Your task to perform on an android device: turn off notifications settings in the gmail app Image 0: 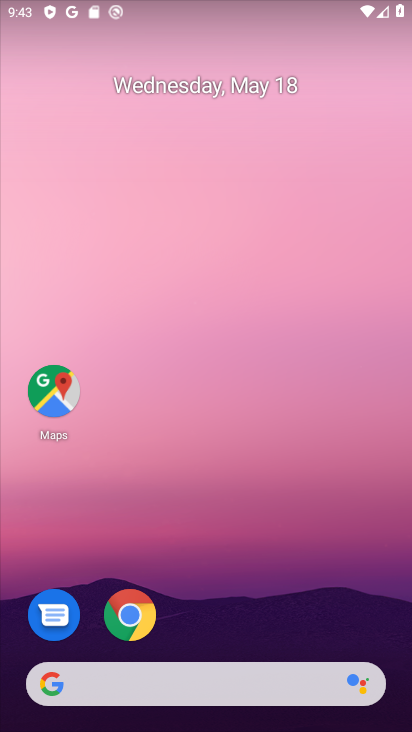
Step 0: drag from (319, 640) to (328, 145)
Your task to perform on an android device: turn off notifications settings in the gmail app Image 1: 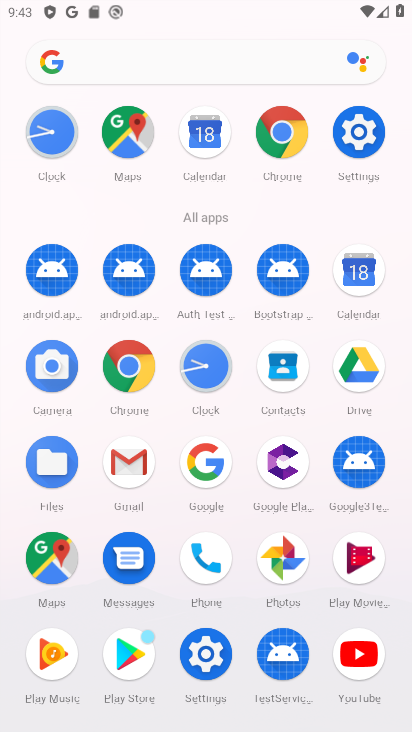
Step 1: click (123, 452)
Your task to perform on an android device: turn off notifications settings in the gmail app Image 2: 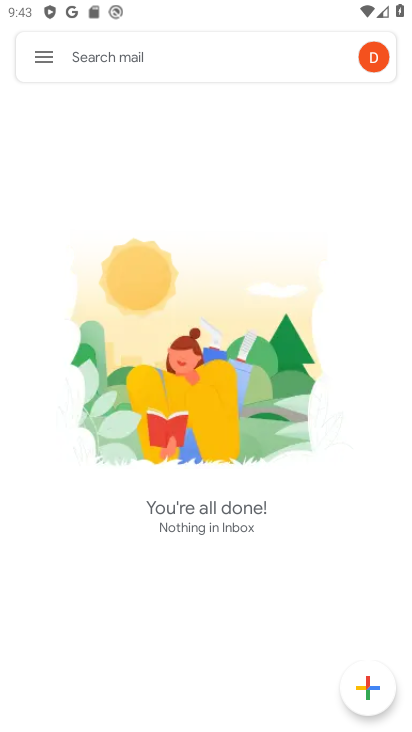
Step 2: click (44, 64)
Your task to perform on an android device: turn off notifications settings in the gmail app Image 3: 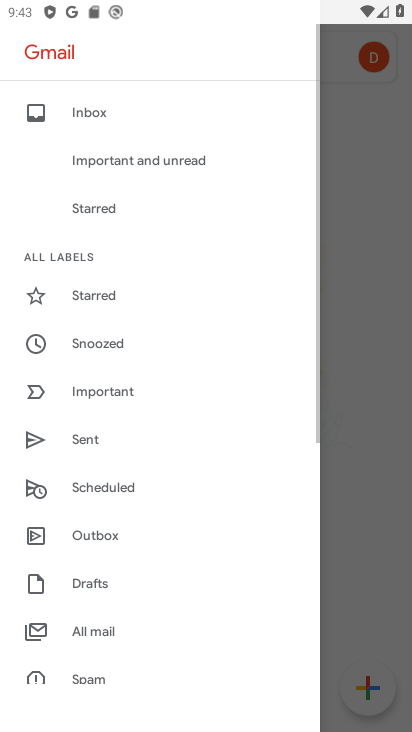
Step 3: drag from (68, 583) to (98, 190)
Your task to perform on an android device: turn off notifications settings in the gmail app Image 4: 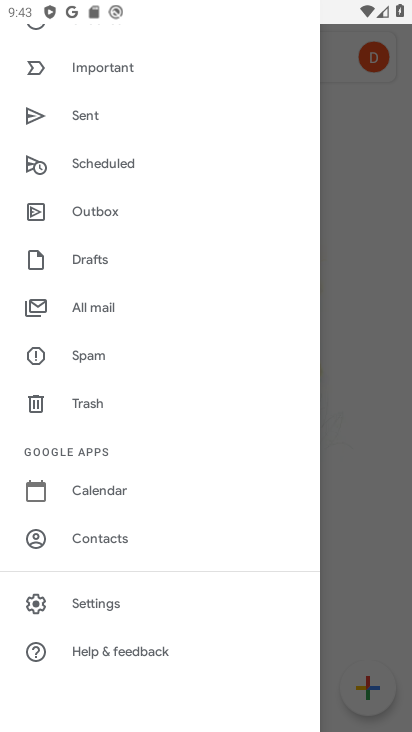
Step 4: click (119, 612)
Your task to perform on an android device: turn off notifications settings in the gmail app Image 5: 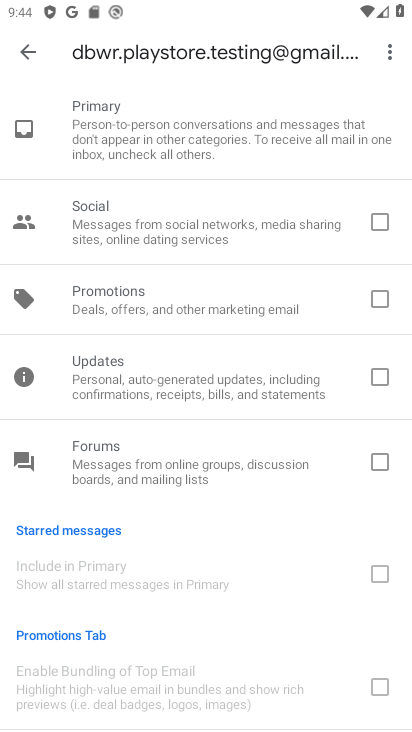
Step 5: click (30, 52)
Your task to perform on an android device: turn off notifications settings in the gmail app Image 6: 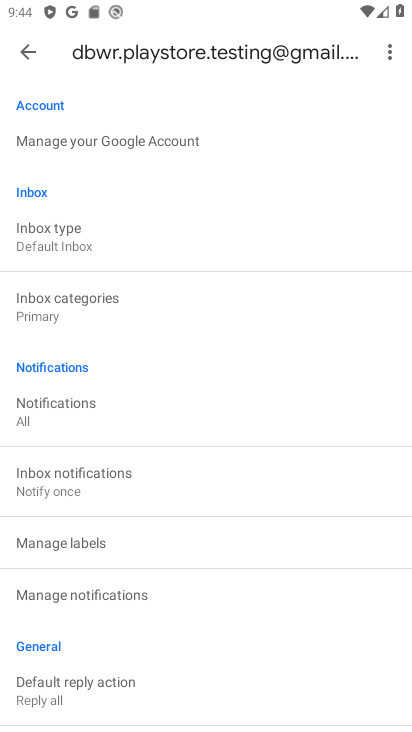
Step 6: click (106, 593)
Your task to perform on an android device: turn off notifications settings in the gmail app Image 7: 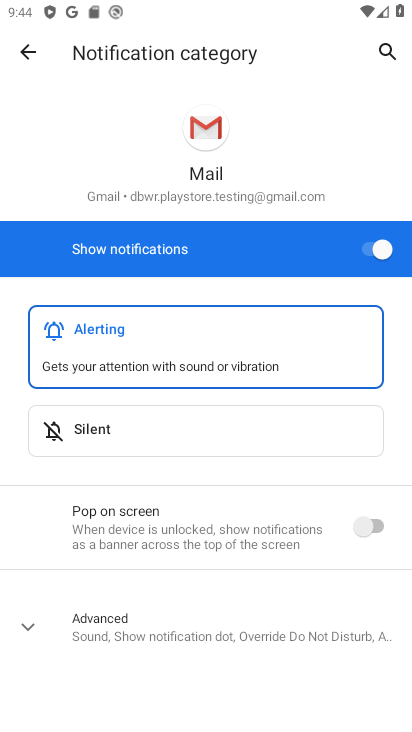
Step 7: click (371, 254)
Your task to perform on an android device: turn off notifications settings in the gmail app Image 8: 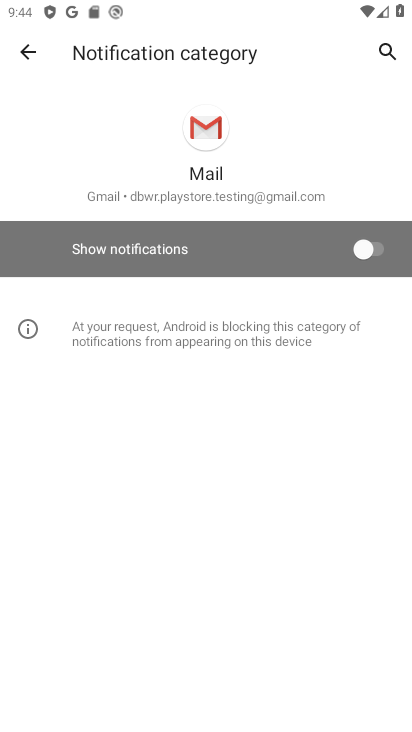
Step 8: task complete